Your task to perform on an android device: open a new tab in the chrome app Image 0: 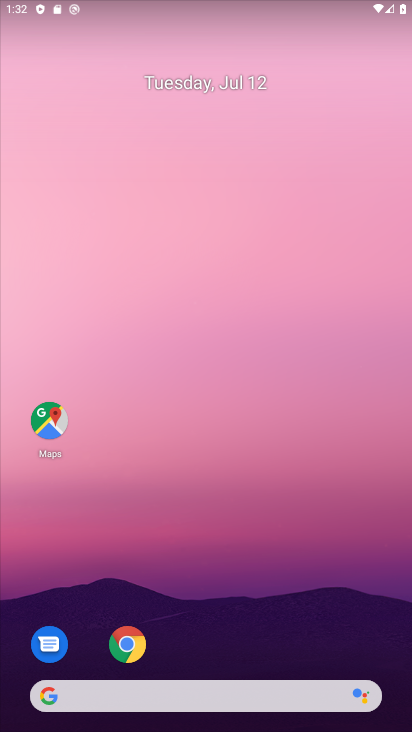
Step 0: drag from (198, 662) to (366, 74)
Your task to perform on an android device: open a new tab in the chrome app Image 1: 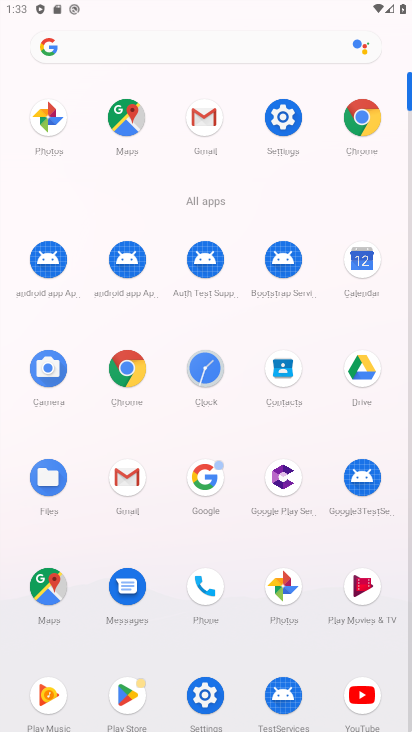
Step 1: click (131, 369)
Your task to perform on an android device: open a new tab in the chrome app Image 2: 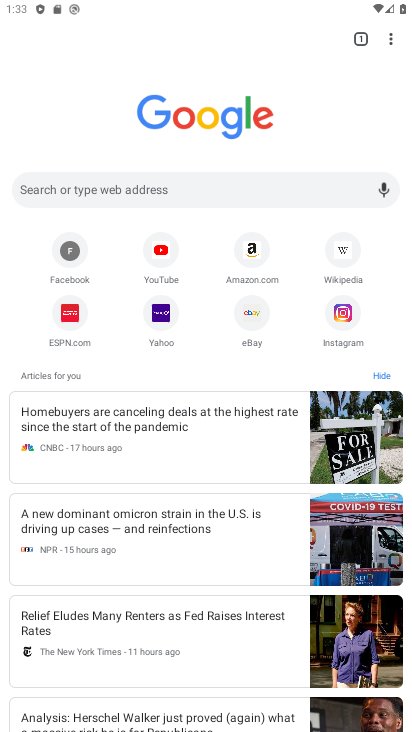
Step 2: task complete